Your task to perform on an android device: Open the calendar and show me this week's events Image 0: 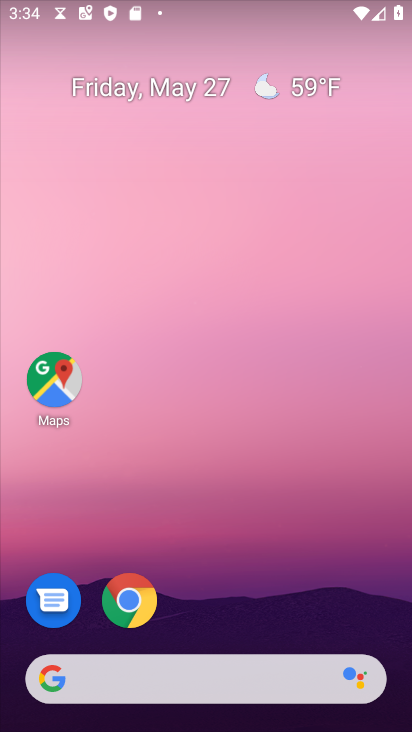
Step 0: drag from (272, 572) to (201, 17)
Your task to perform on an android device: Open the calendar and show me this week's events Image 1: 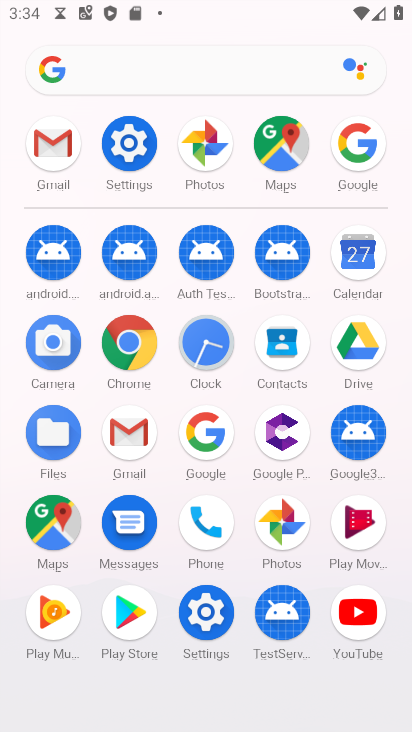
Step 1: click (359, 254)
Your task to perform on an android device: Open the calendar and show me this week's events Image 2: 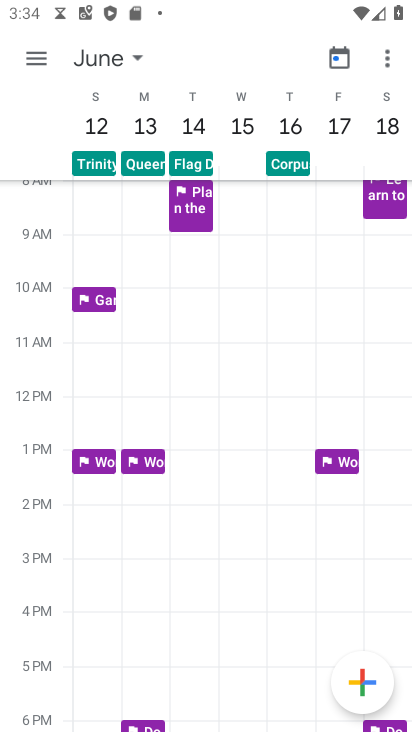
Step 2: click (343, 57)
Your task to perform on an android device: Open the calendar and show me this week's events Image 3: 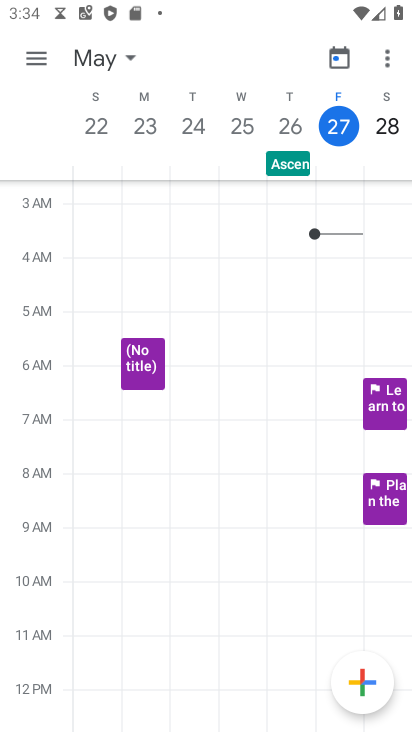
Step 3: click (129, 57)
Your task to perform on an android device: Open the calendar and show me this week's events Image 4: 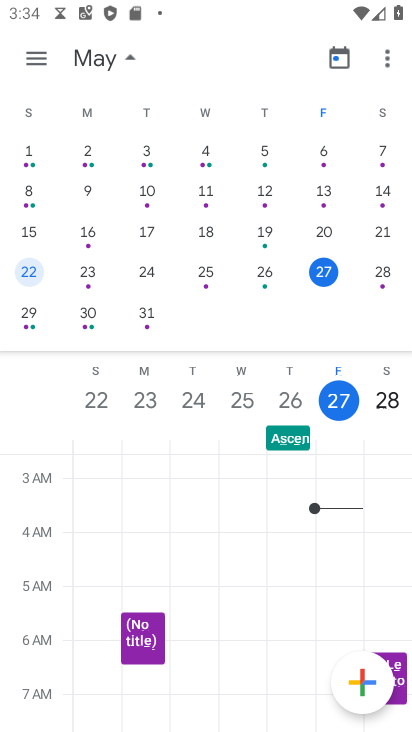
Step 4: click (47, 61)
Your task to perform on an android device: Open the calendar and show me this week's events Image 5: 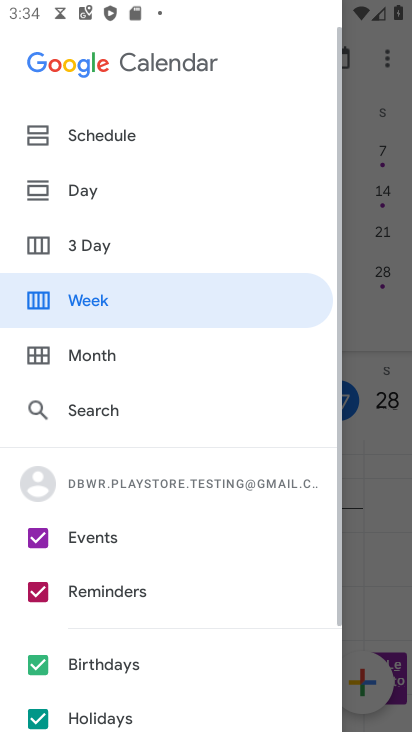
Step 5: click (88, 123)
Your task to perform on an android device: Open the calendar and show me this week's events Image 6: 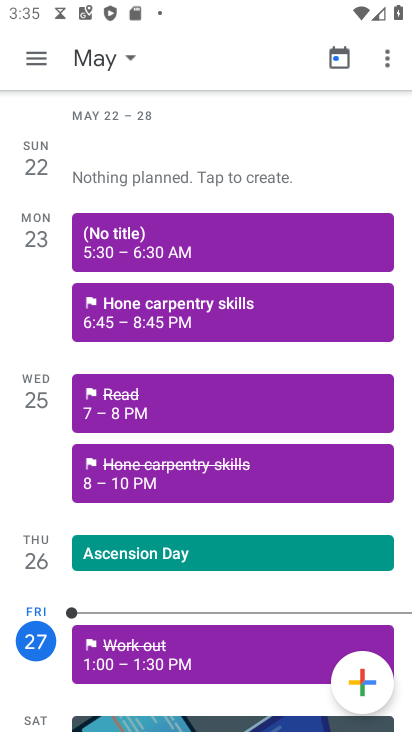
Step 6: task complete